Your task to perform on an android device: allow notifications from all sites in the chrome app Image 0: 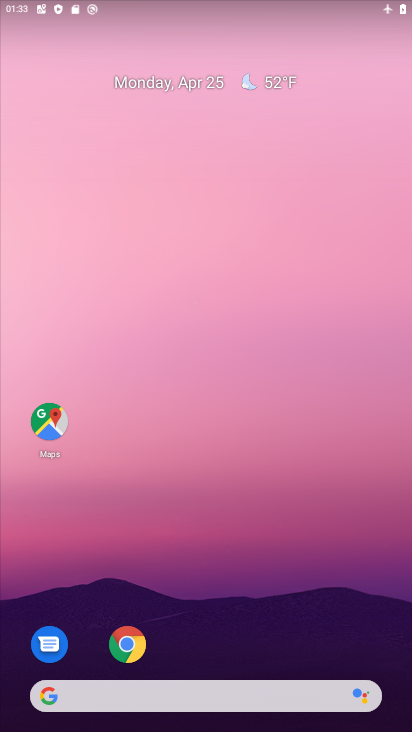
Step 0: click (138, 638)
Your task to perform on an android device: allow notifications from all sites in the chrome app Image 1: 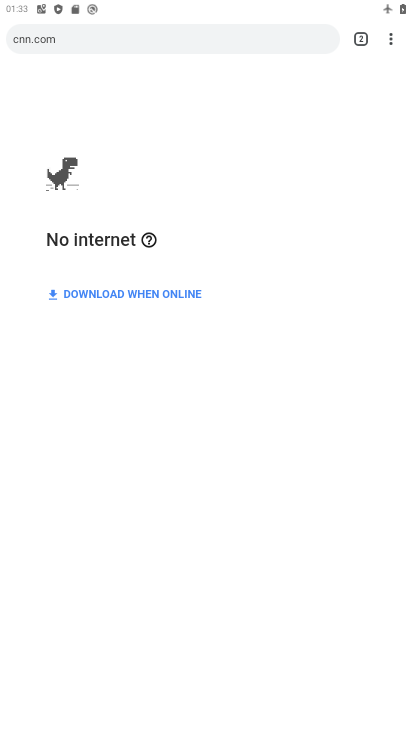
Step 1: click (390, 40)
Your task to perform on an android device: allow notifications from all sites in the chrome app Image 2: 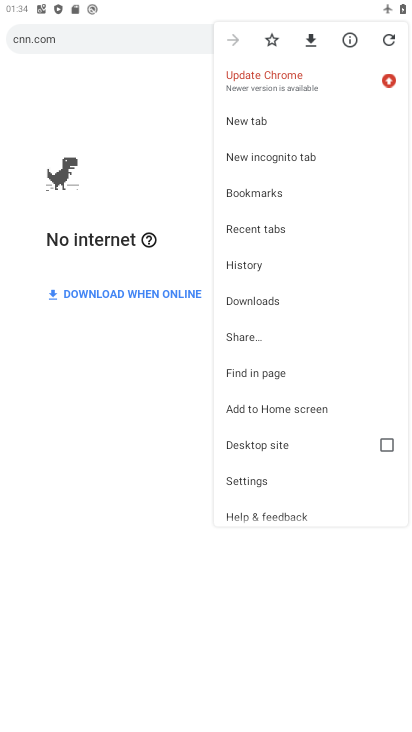
Step 2: click (261, 472)
Your task to perform on an android device: allow notifications from all sites in the chrome app Image 3: 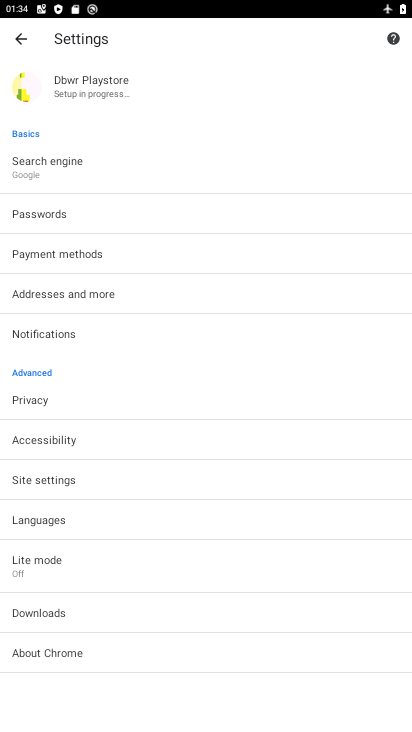
Step 3: click (160, 469)
Your task to perform on an android device: allow notifications from all sites in the chrome app Image 4: 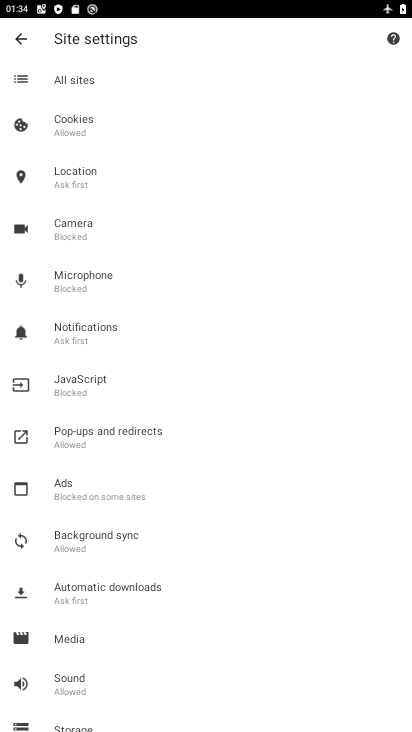
Step 4: task complete